Your task to perform on an android device: Go to accessibility settings Image 0: 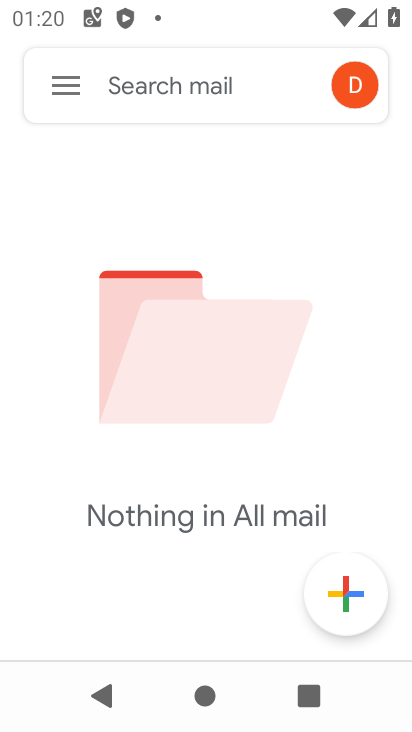
Step 0: press home button
Your task to perform on an android device: Go to accessibility settings Image 1: 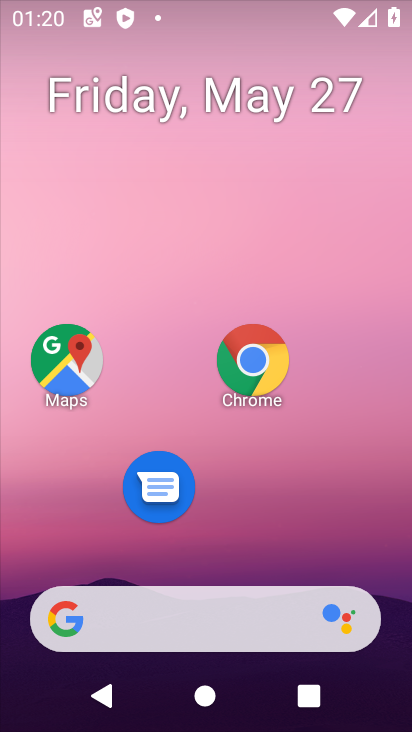
Step 1: drag from (265, 511) to (271, 80)
Your task to perform on an android device: Go to accessibility settings Image 2: 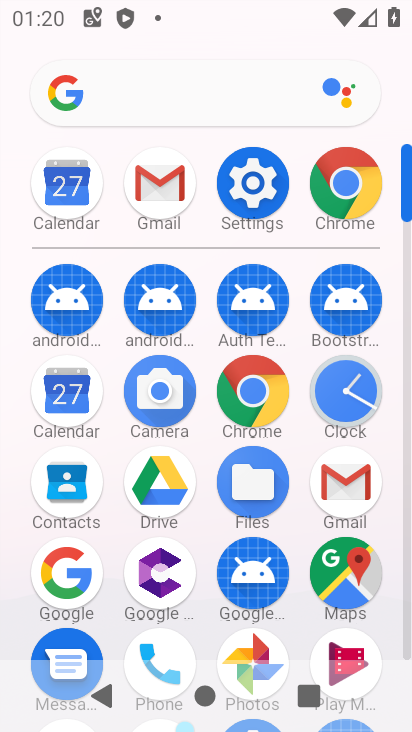
Step 2: click (249, 184)
Your task to perform on an android device: Go to accessibility settings Image 3: 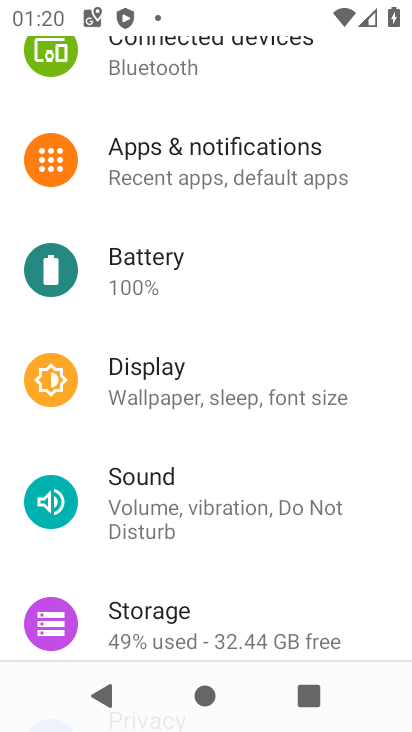
Step 3: drag from (267, 543) to (264, 62)
Your task to perform on an android device: Go to accessibility settings Image 4: 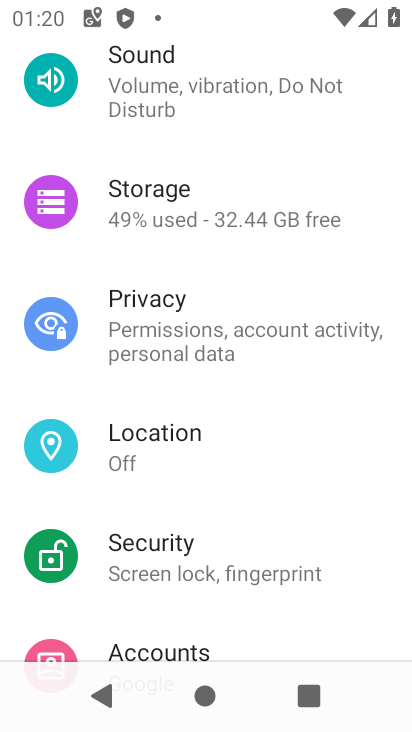
Step 4: drag from (259, 567) to (258, 102)
Your task to perform on an android device: Go to accessibility settings Image 5: 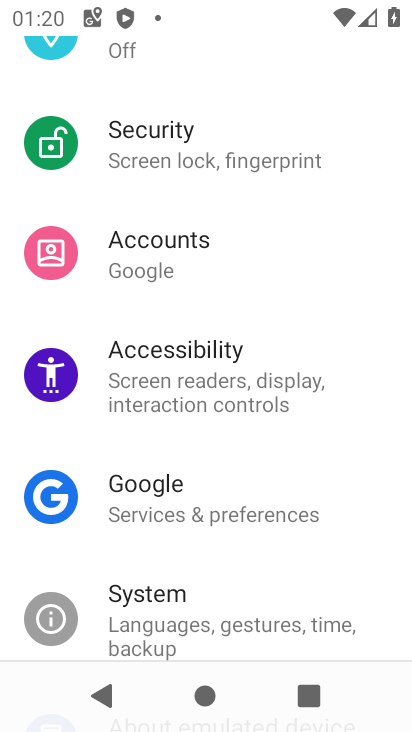
Step 5: click (187, 365)
Your task to perform on an android device: Go to accessibility settings Image 6: 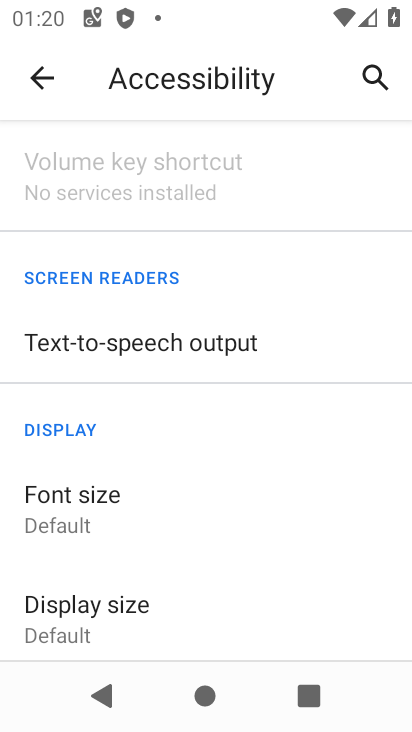
Step 6: task complete